Your task to perform on an android device: manage bookmarks in the chrome app Image 0: 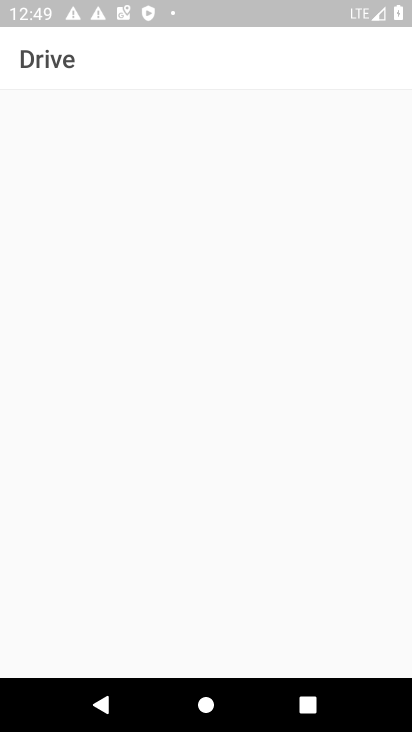
Step 0: press home button
Your task to perform on an android device: manage bookmarks in the chrome app Image 1: 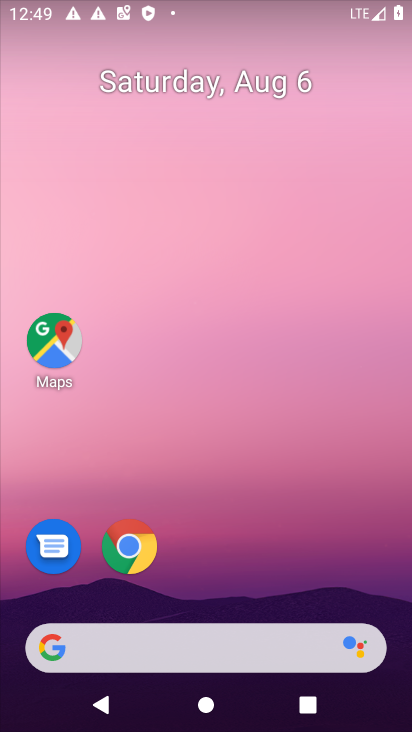
Step 1: click (131, 546)
Your task to perform on an android device: manage bookmarks in the chrome app Image 2: 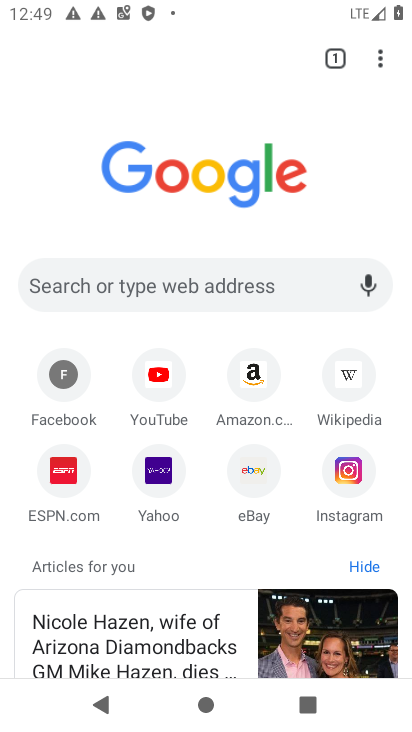
Step 2: click (377, 64)
Your task to perform on an android device: manage bookmarks in the chrome app Image 3: 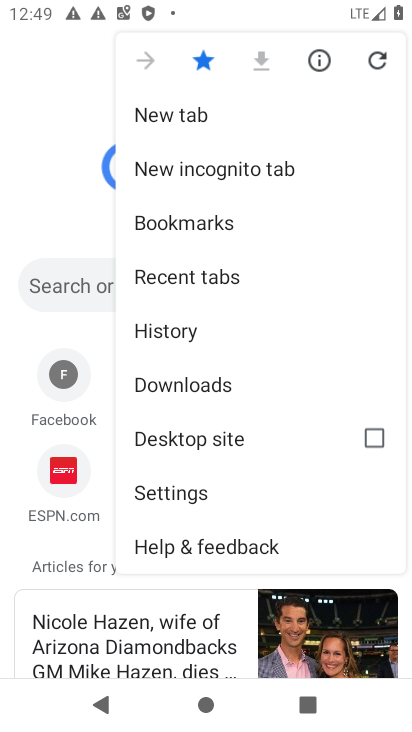
Step 3: click (179, 226)
Your task to perform on an android device: manage bookmarks in the chrome app Image 4: 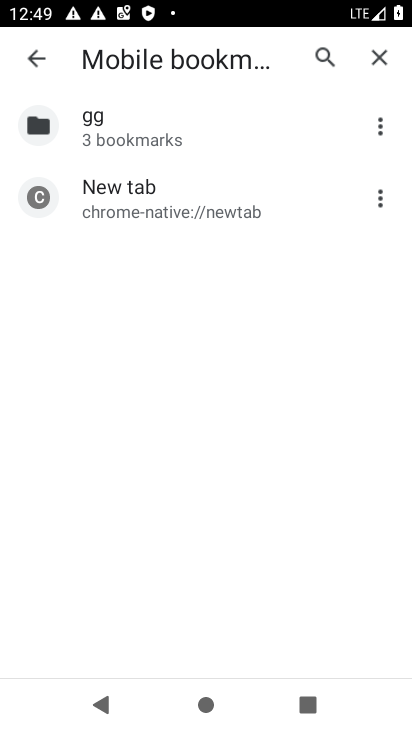
Step 4: click (125, 181)
Your task to perform on an android device: manage bookmarks in the chrome app Image 5: 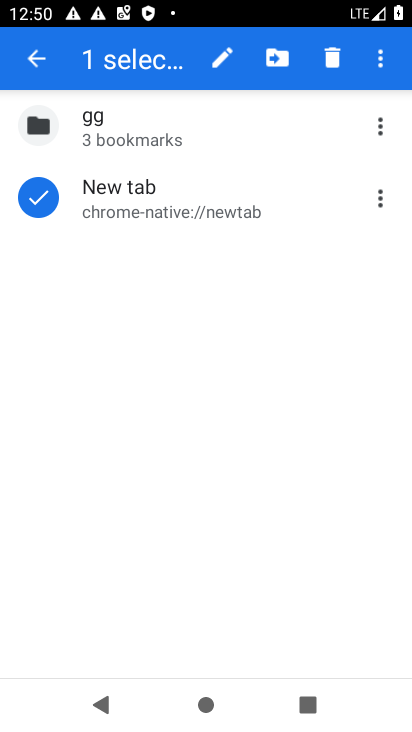
Step 5: click (278, 58)
Your task to perform on an android device: manage bookmarks in the chrome app Image 6: 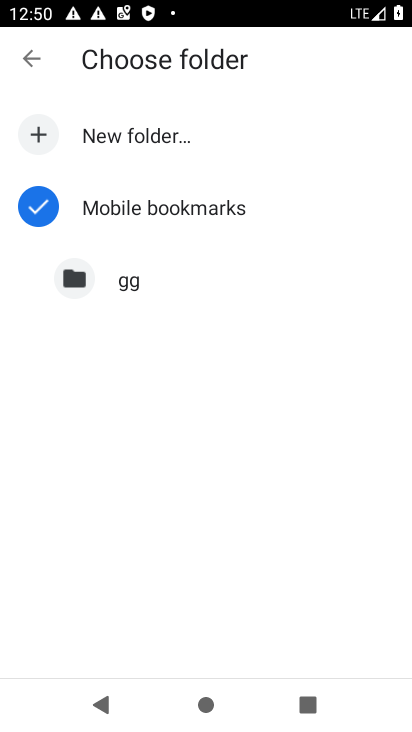
Step 6: click (40, 132)
Your task to perform on an android device: manage bookmarks in the chrome app Image 7: 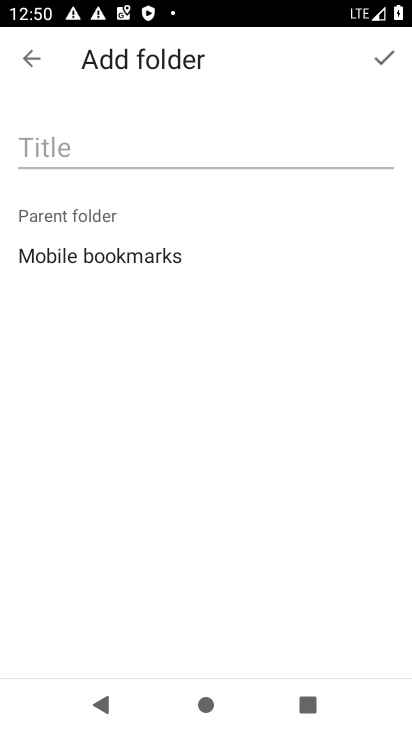
Step 7: click (73, 140)
Your task to perform on an android device: manage bookmarks in the chrome app Image 8: 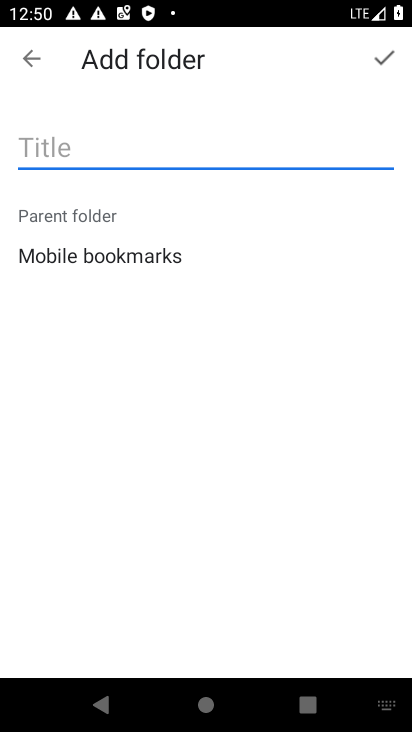
Step 8: type "bb"
Your task to perform on an android device: manage bookmarks in the chrome app Image 9: 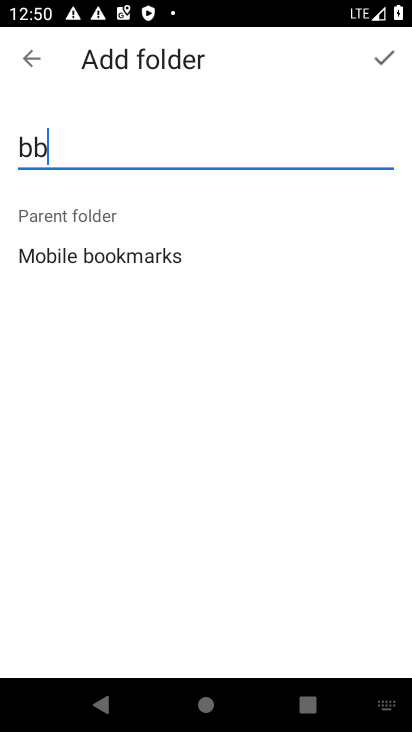
Step 9: click (383, 60)
Your task to perform on an android device: manage bookmarks in the chrome app Image 10: 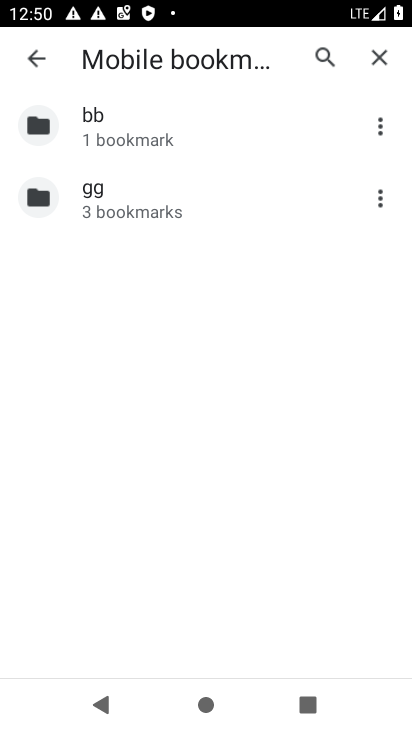
Step 10: task complete